Your task to perform on an android device: Open Youtube and go to "Your channel" Image 0: 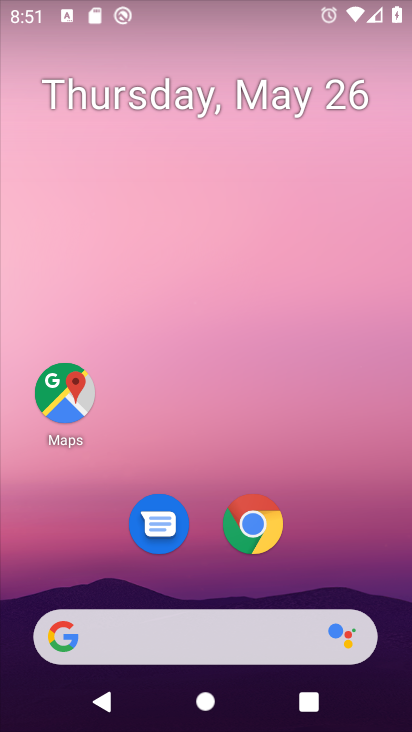
Step 0: drag from (199, 533) to (202, 31)
Your task to perform on an android device: Open Youtube and go to "Your channel" Image 1: 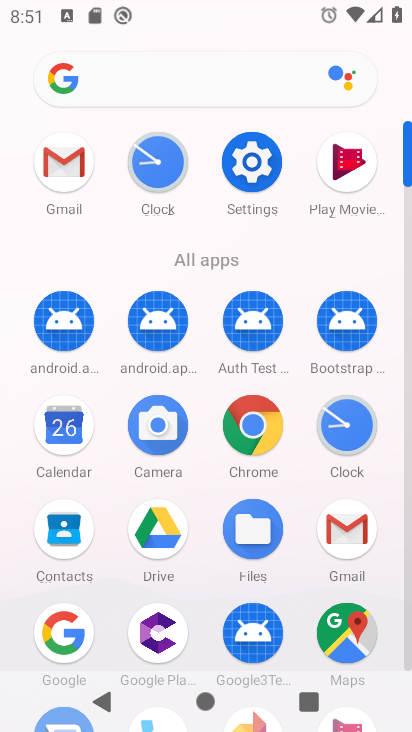
Step 1: drag from (210, 481) to (202, 102)
Your task to perform on an android device: Open Youtube and go to "Your channel" Image 2: 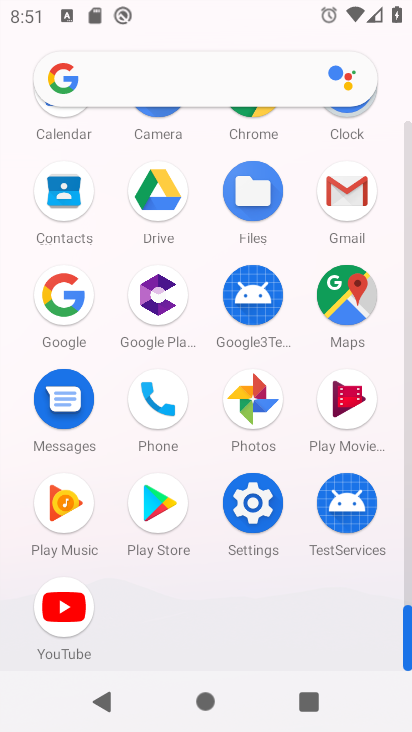
Step 2: click (55, 597)
Your task to perform on an android device: Open Youtube and go to "Your channel" Image 3: 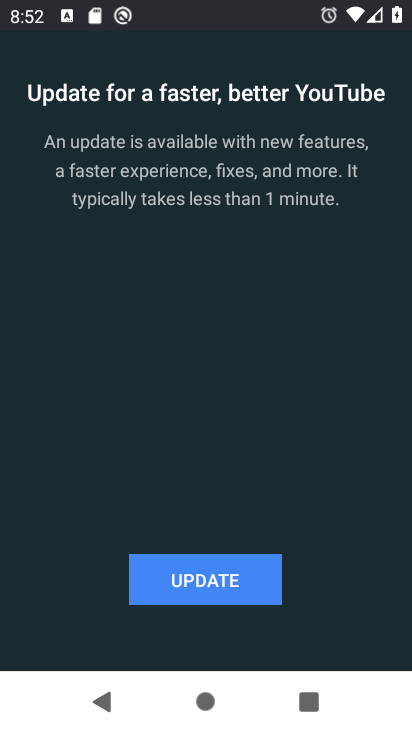
Step 3: click (185, 570)
Your task to perform on an android device: Open Youtube and go to "Your channel" Image 4: 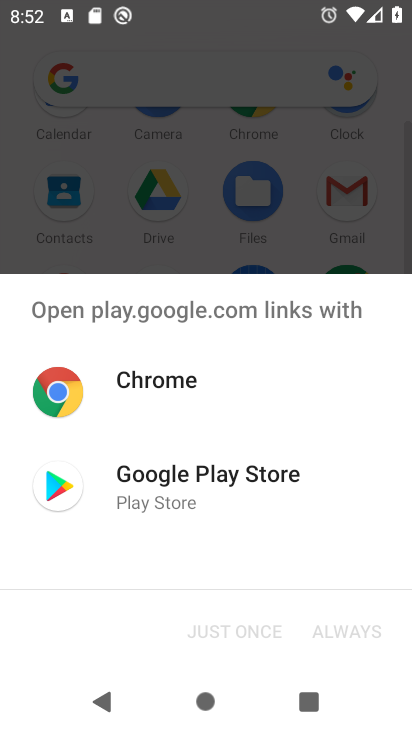
Step 4: click (142, 487)
Your task to perform on an android device: Open Youtube and go to "Your channel" Image 5: 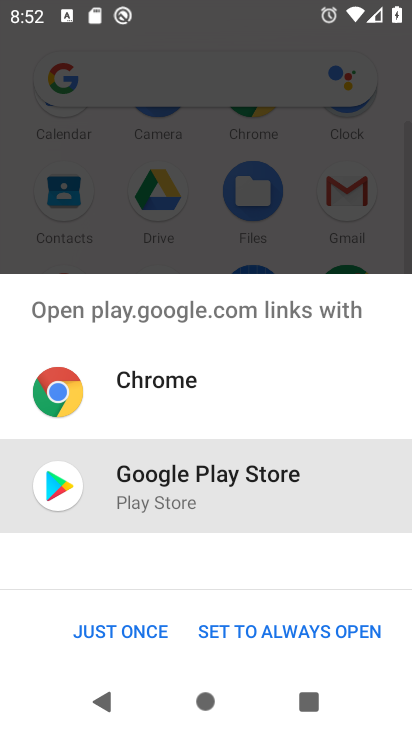
Step 5: click (132, 624)
Your task to perform on an android device: Open Youtube and go to "Your channel" Image 6: 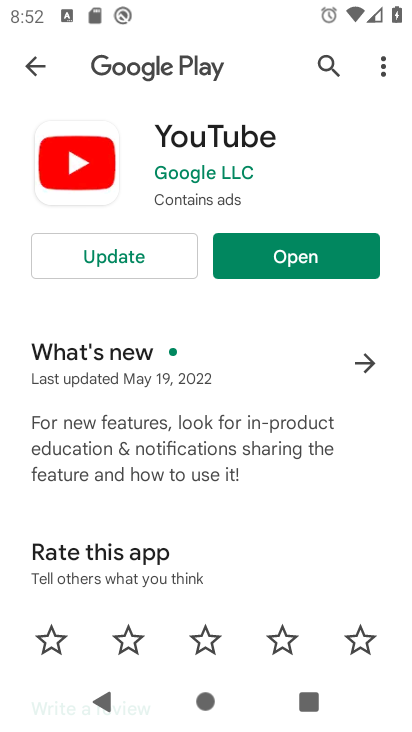
Step 6: click (155, 256)
Your task to perform on an android device: Open Youtube and go to "Your channel" Image 7: 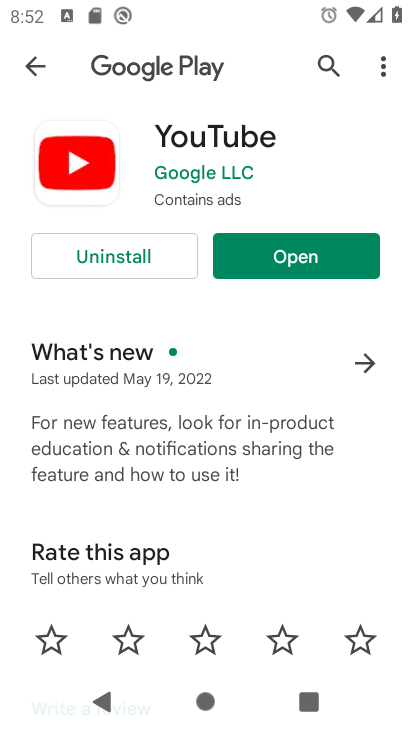
Step 7: click (247, 267)
Your task to perform on an android device: Open Youtube and go to "Your channel" Image 8: 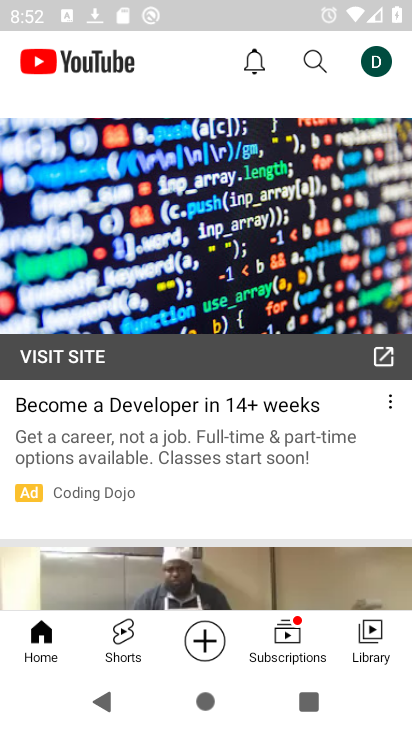
Step 8: click (378, 52)
Your task to perform on an android device: Open Youtube and go to "Your channel" Image 9: 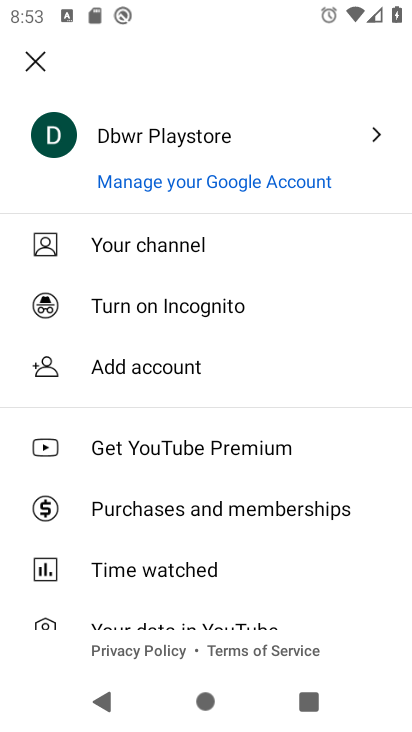
Step 9: click (202, 235)
Your task to perform on an android device: Open Youtube and go to "Your channel" Image 10: 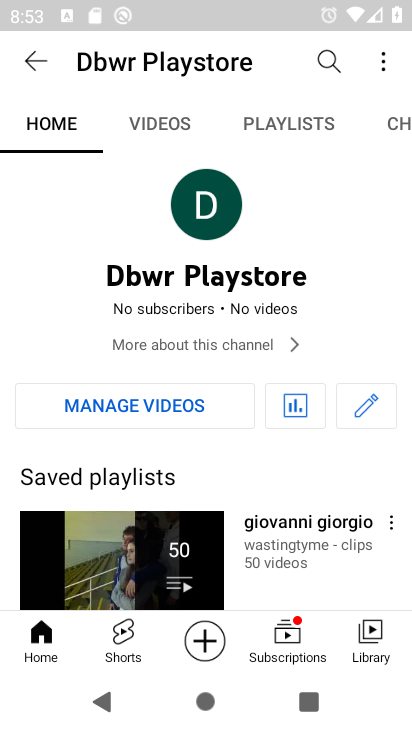
Step 10: task complete